Your task to perform on an android device: turn on airplane mode Image 0: 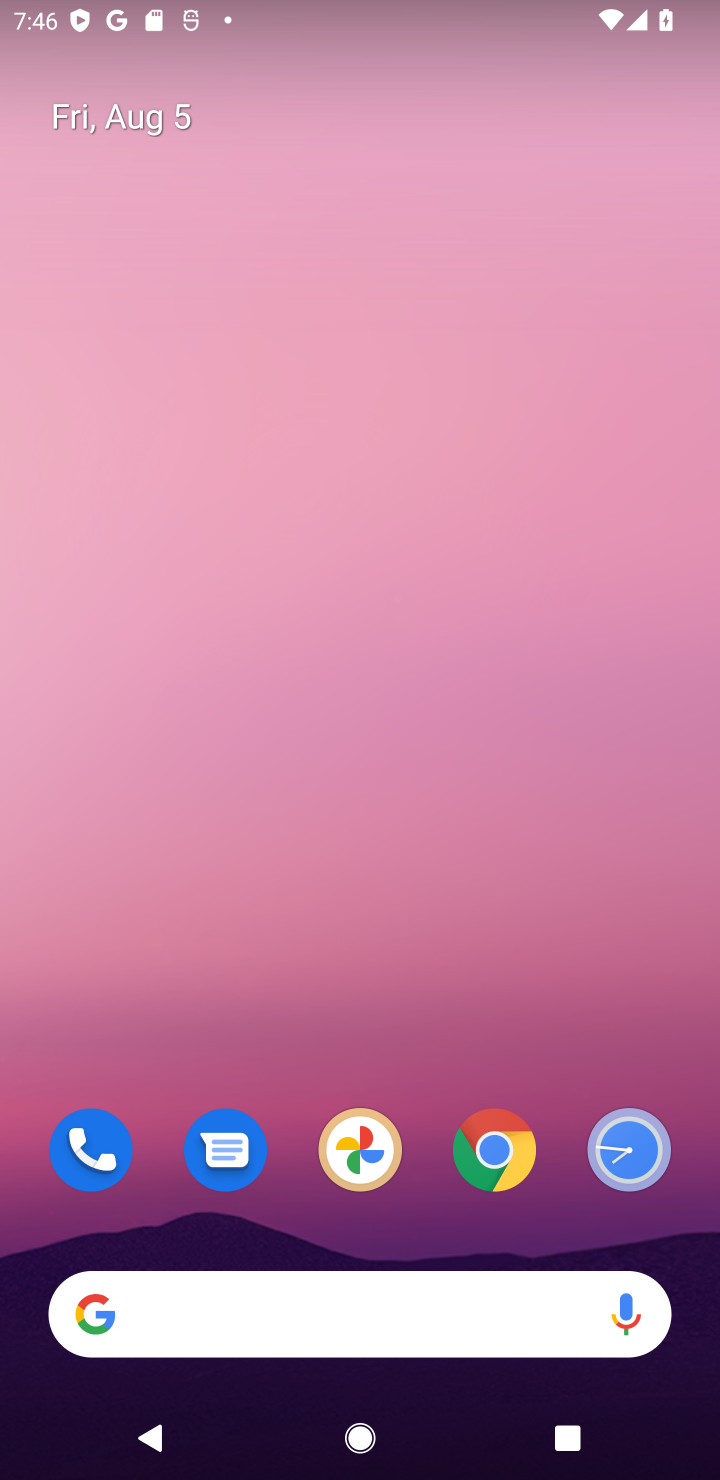
Step 0: press home button
Your task to perform on an android device: turn on airplane mode Image 1: 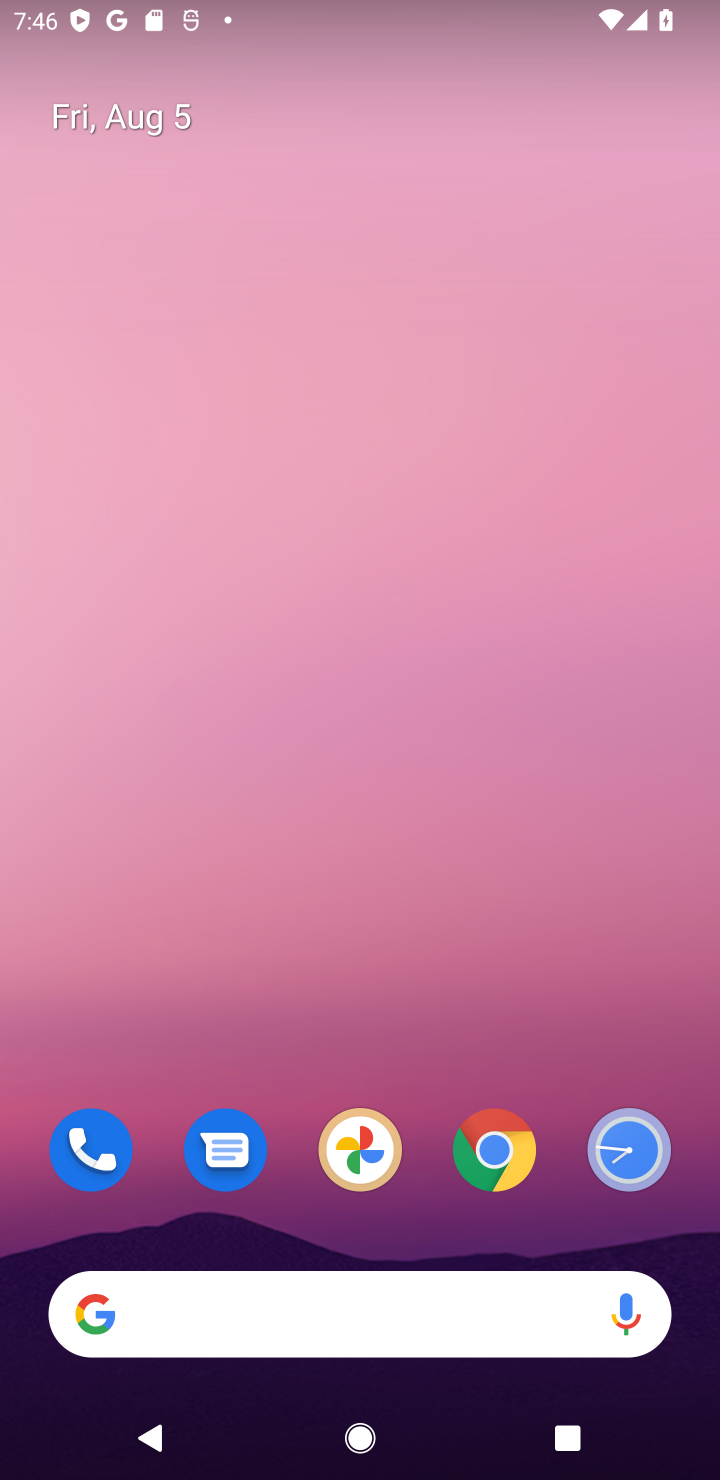
Step 1: click (415, 1429)
Your task to perform on an android device: turn on airplane mode Image 2: 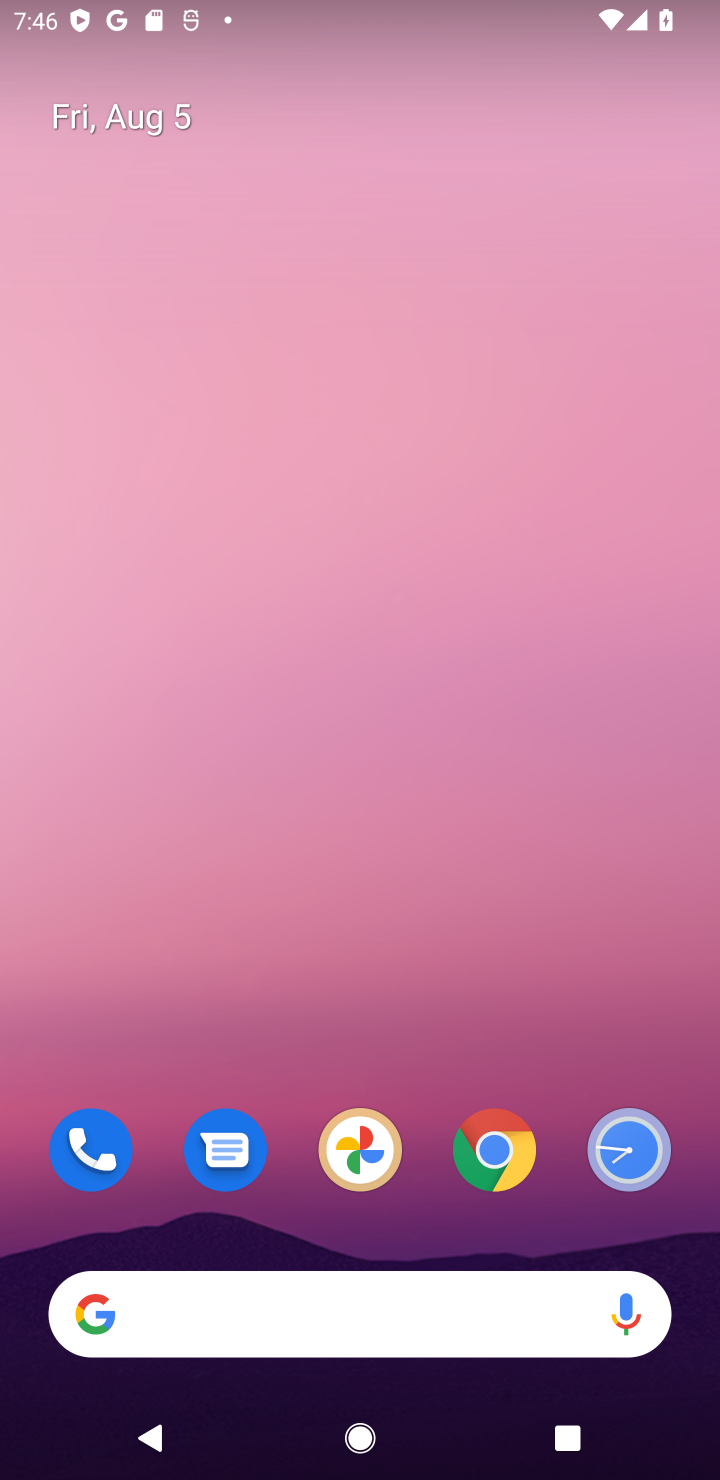
Step 2: drag from (287, 1077) to (326, 503)
Your task to perform on an android device: turn on airplane mode Image 3: 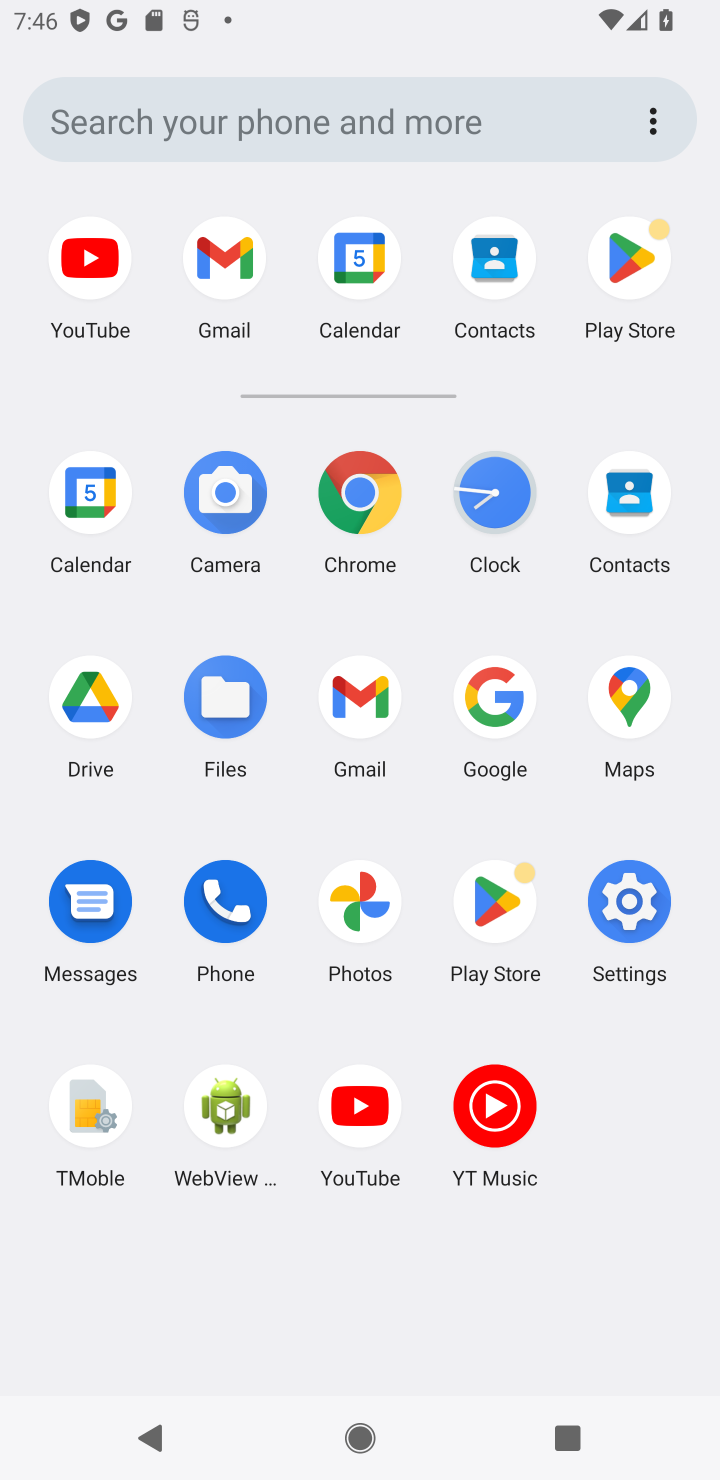
Step 3: click (622, 921)
Your task to perform on an android device: turn on airplane mode Image 4: 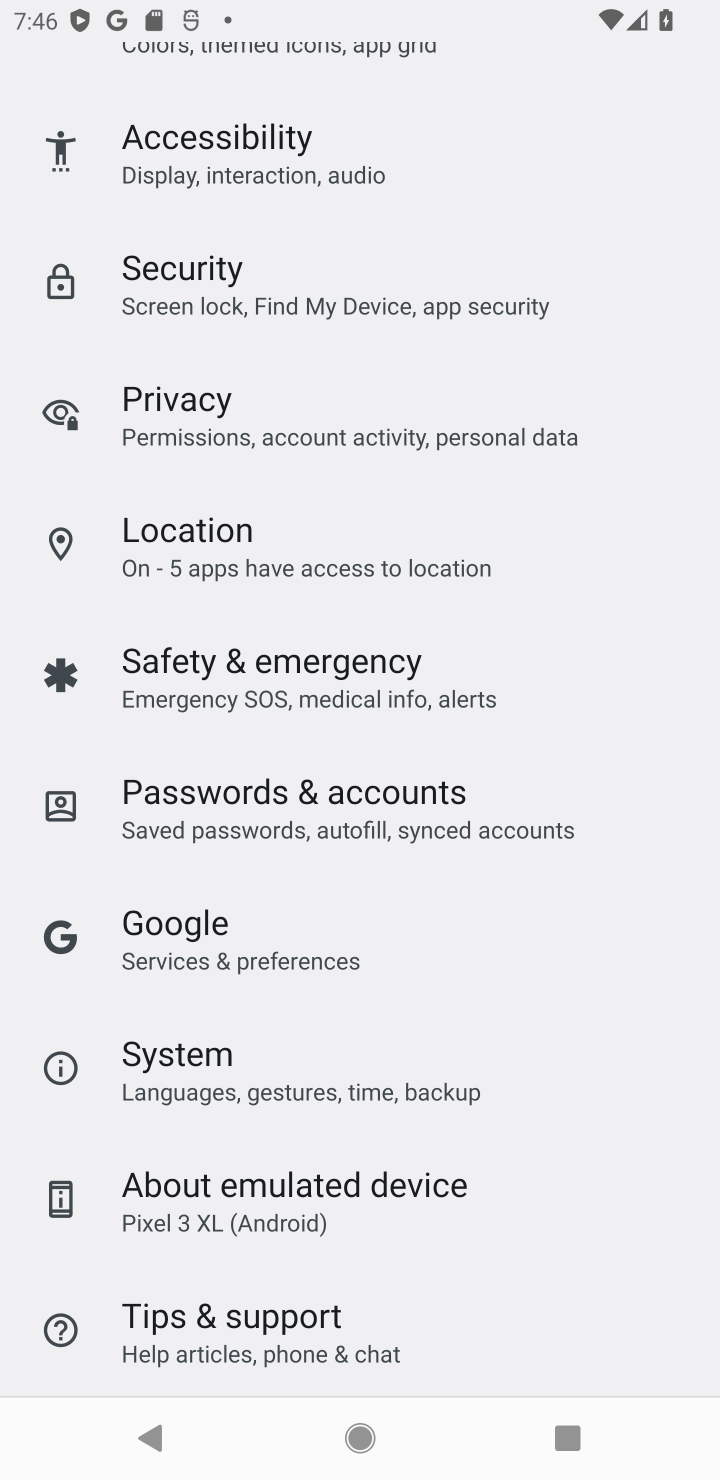
Step 4: drag from (617, 525) to (619, 771)
Your task to perform on an android device: turn on airplane mode Image 5: 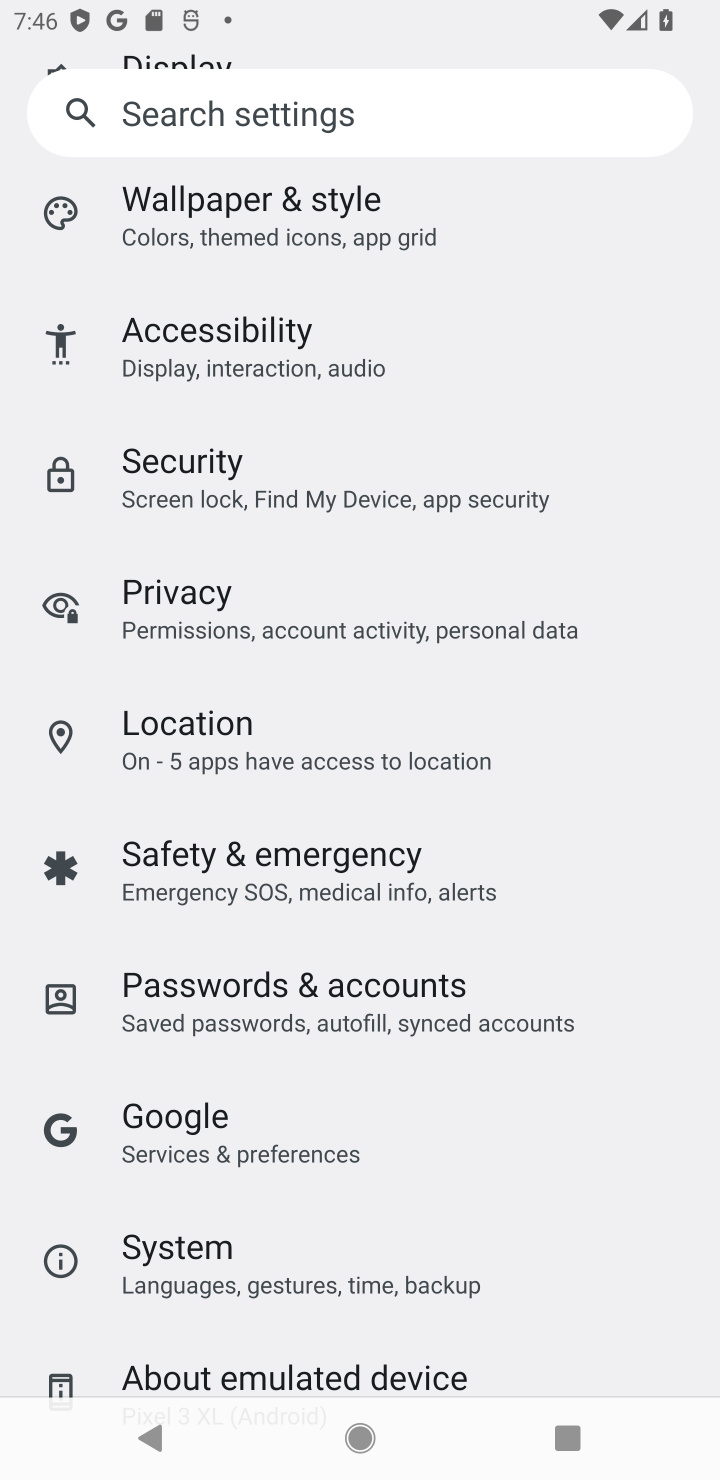
Step 5: drag from (655, 443) to (659, 809)
Your task to perform on an android device: turn on airplane mode Image 6: 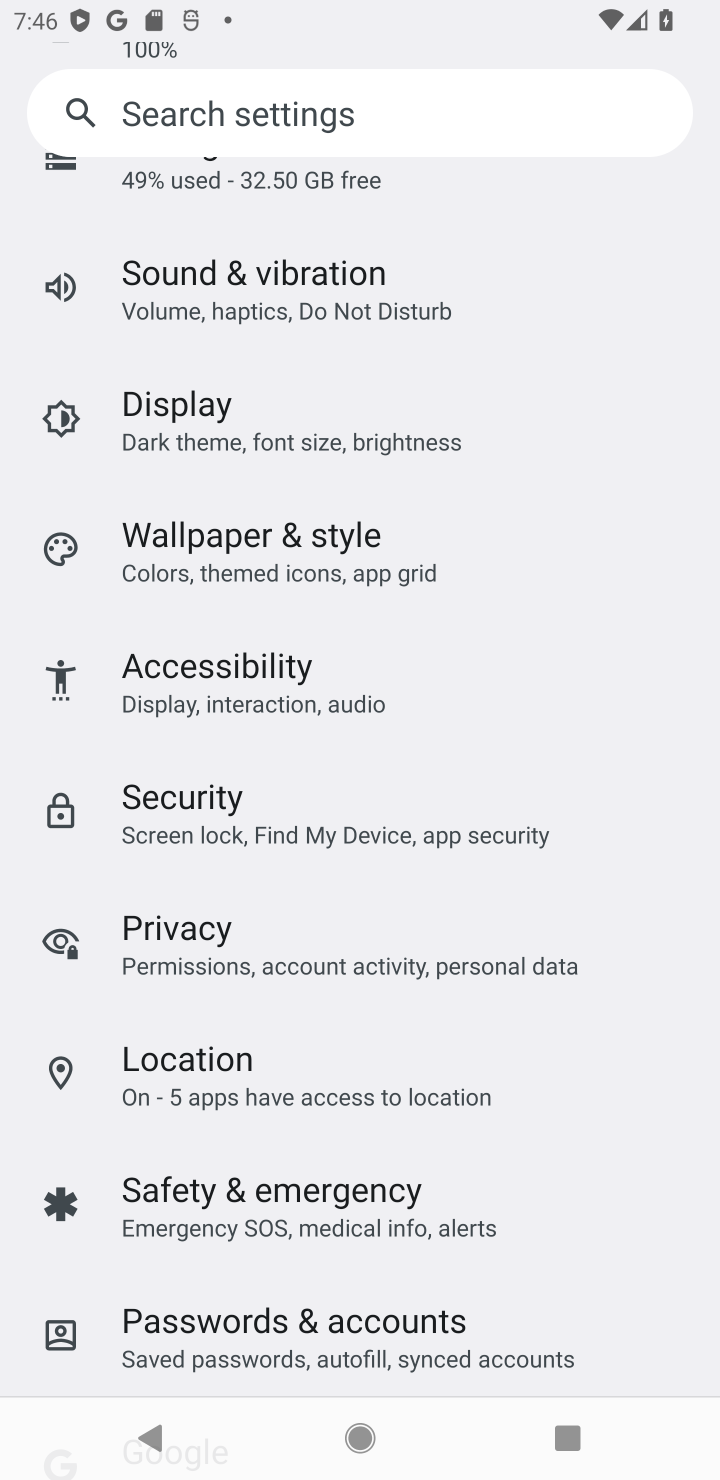
Step 6: drag from (634, 365) to (621, 766)
Your task to perform on an android device: turn on airplane mode Image 7: 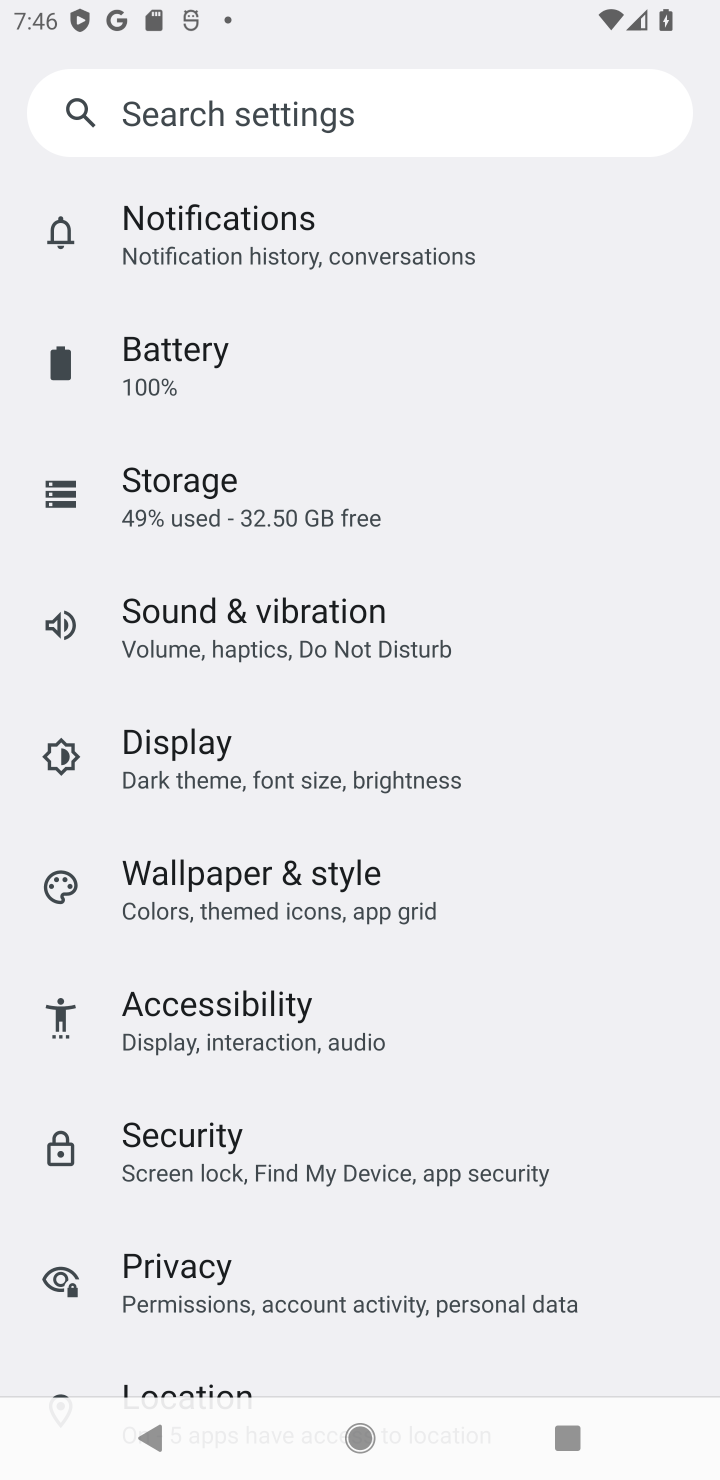
Step 7: drag from (592, 367) to (599, 781)
Your task to perform on an android device: turn on airplane mode Image 8: 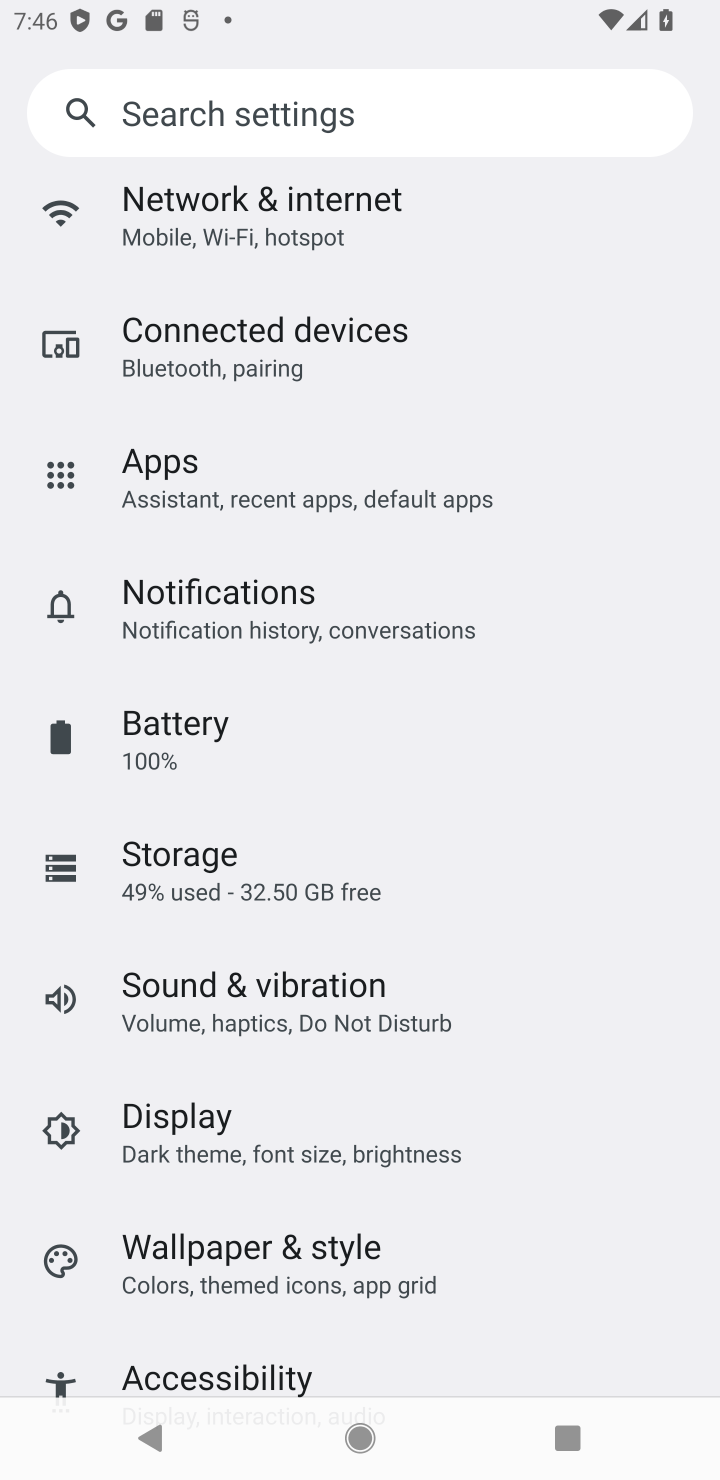
Step 8: drag from (604, 276) to (613, 663)
Your task to perform on an android device: turn on airplane mode Image 9: 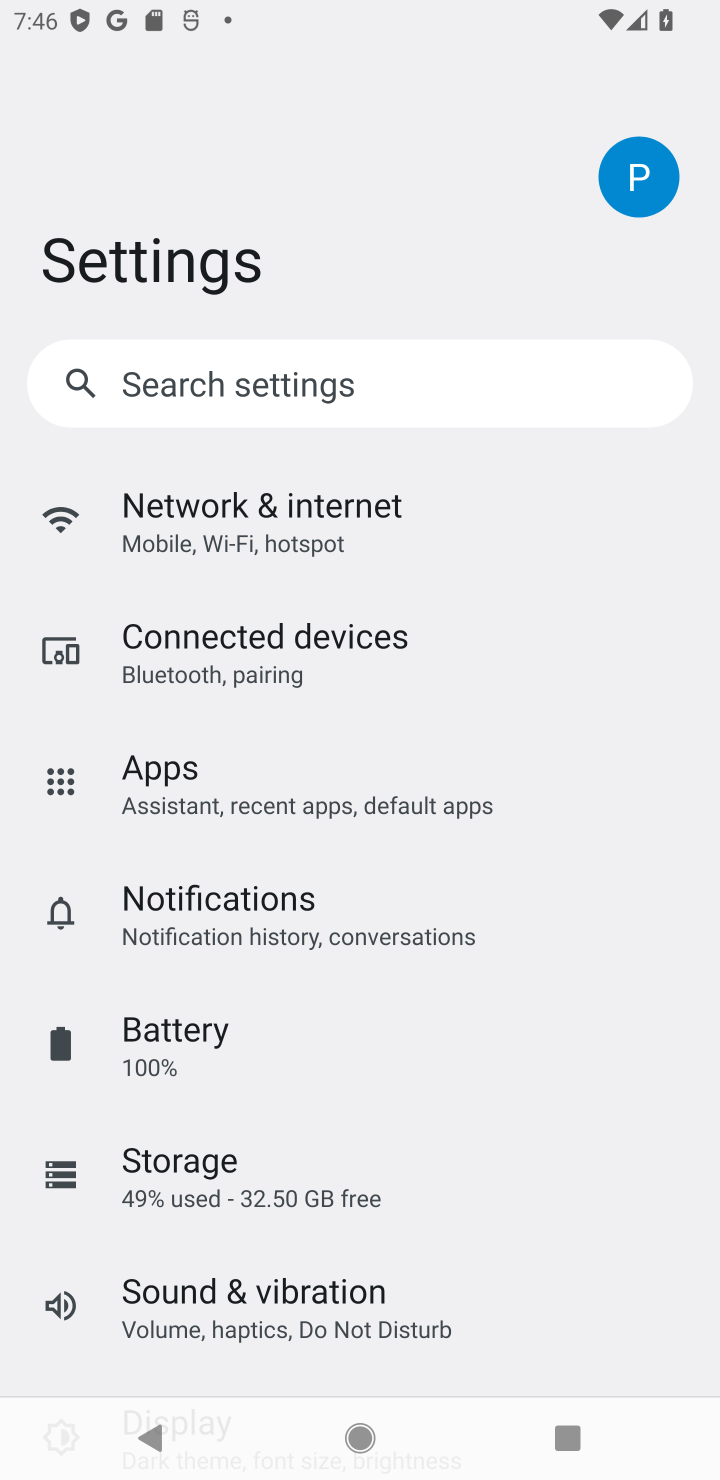
Step 9: click (420, 512)
Your task to perform on an android device: turn on airplane mode Image 10: 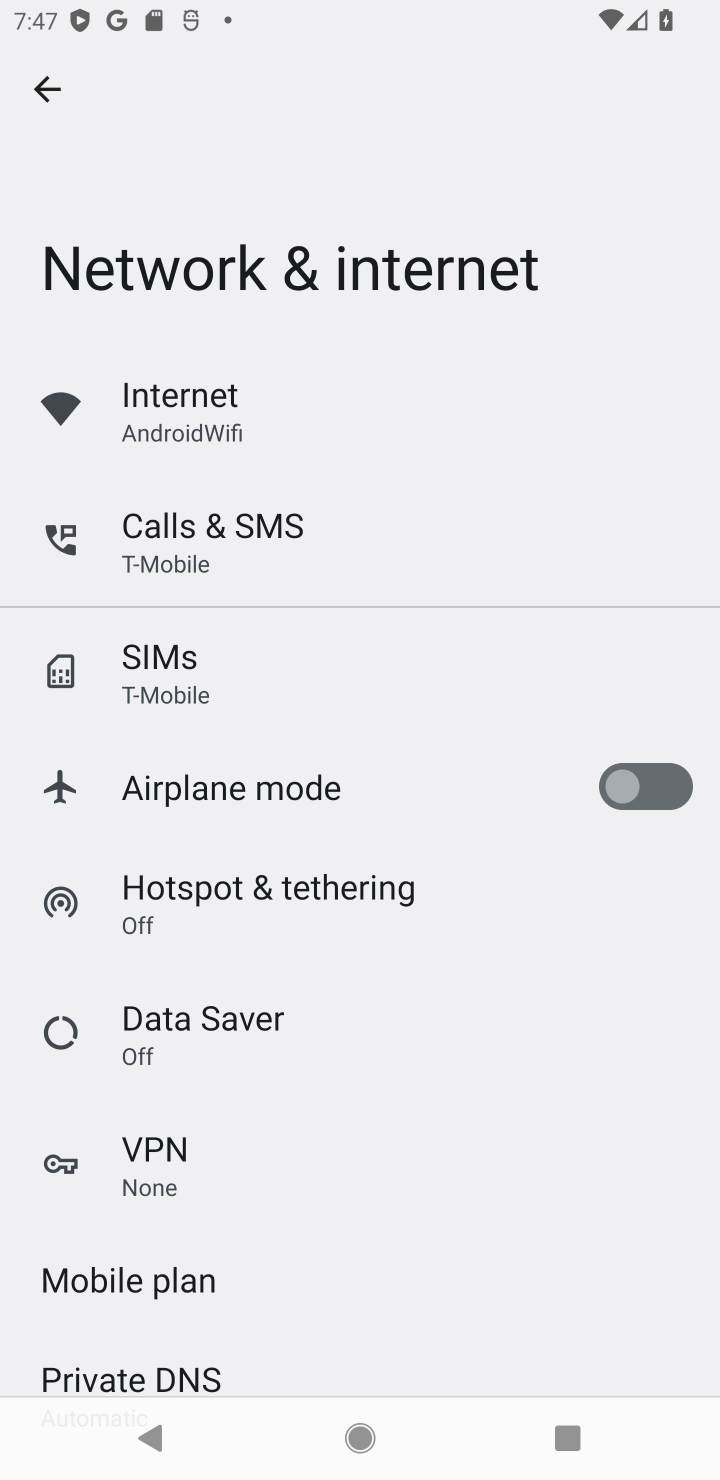
Step 10: click (638, 805)
Your task to perform on an android device: turn on airplane mode Image 11: 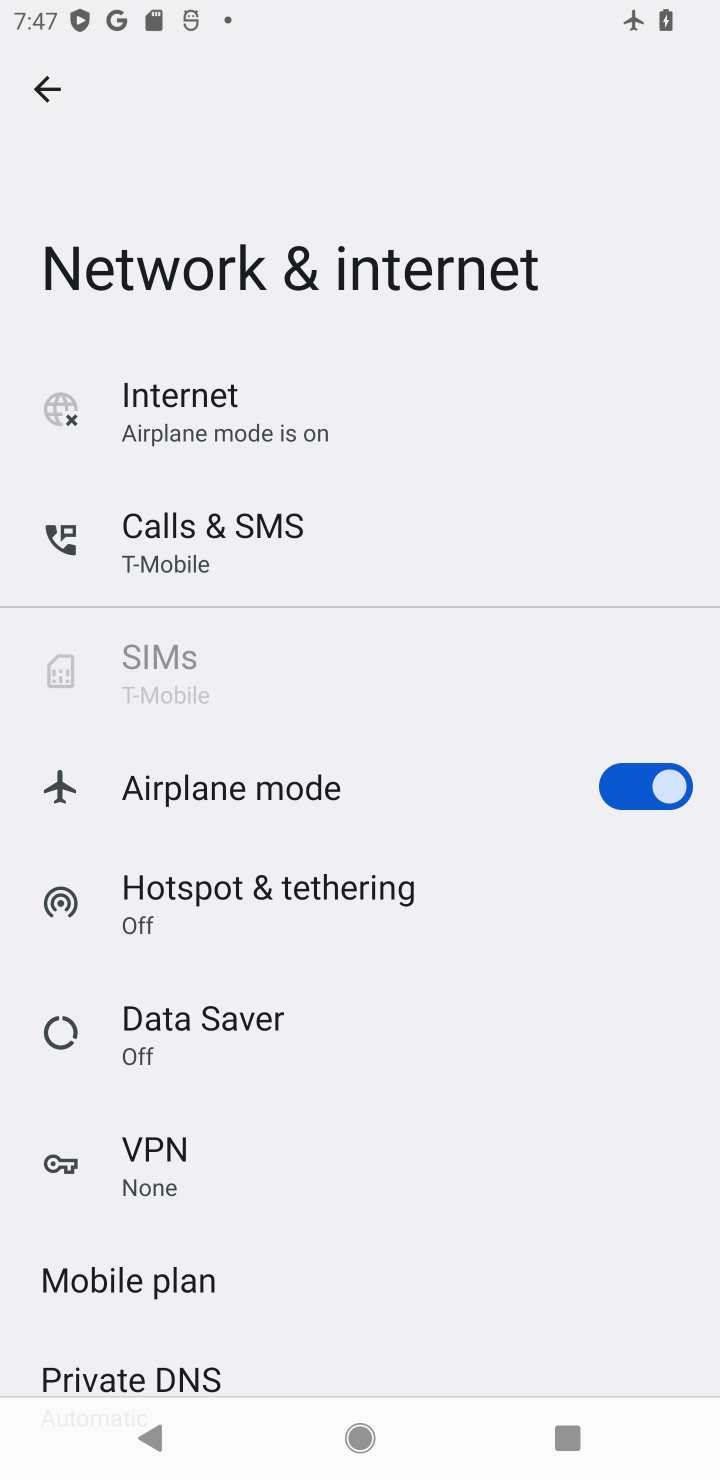
Step 11: task complete